Your task to perform on an android device: open app "ZOOM Cloud Meetings" (install if not already installed), go to login, and select forgot password Image 0: 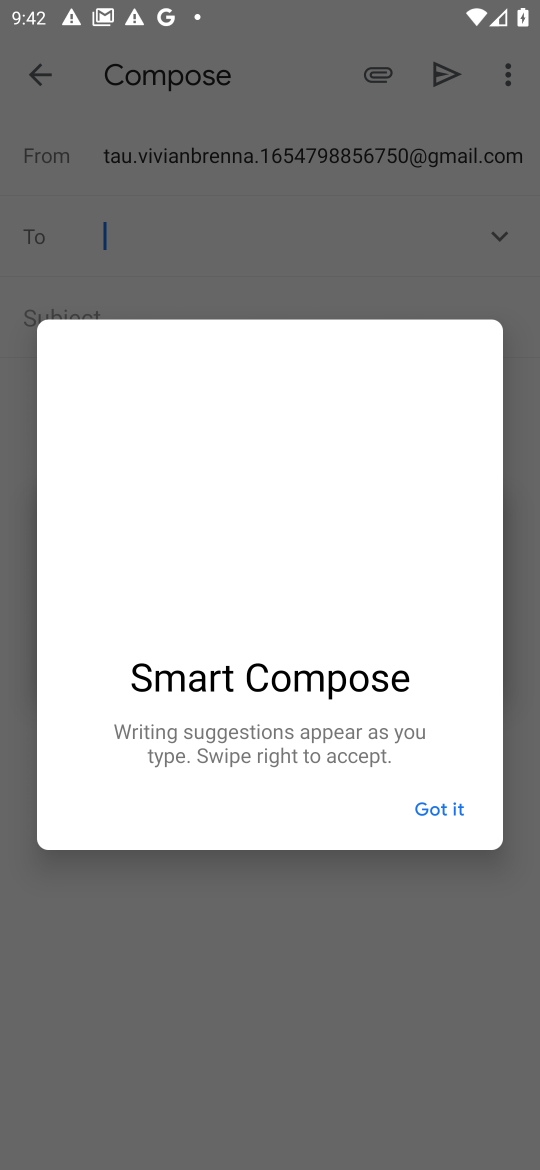
Step 0: press home button
Your task to perform on an android device: open app "ZOOM Cloud Meetings" (install if not already installed), go to login, and select forgot password Image 1: 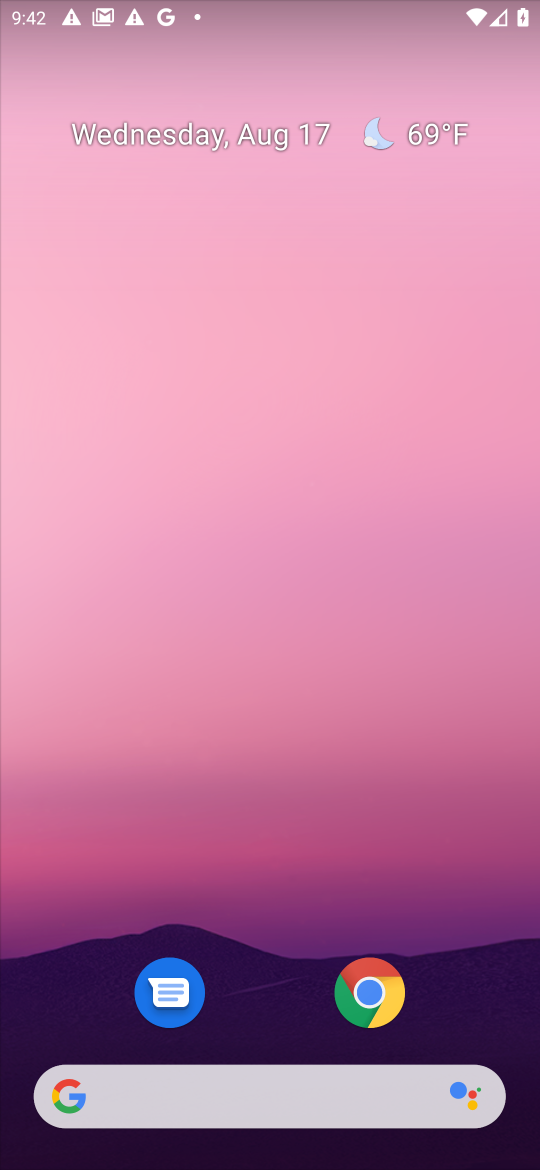
Step 1: drag from (452, 1025) to (238, 61)
Your task to perform on an android device: open app "ZOOM Cloud Meetings" (install if not already installed), go to login, and select forgot password Image 2: 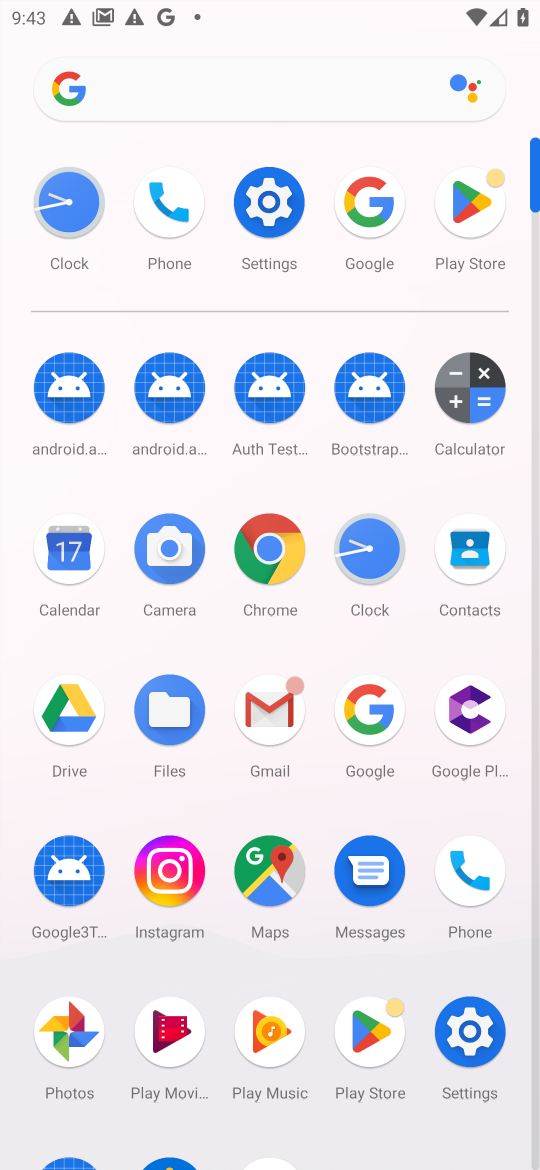
Step 2: click (373, 1027)
Your task to perform on an android device: open app "ZOOM Cloud Meetings" (install if not already installed), go to login, and select forgot password Image 3: 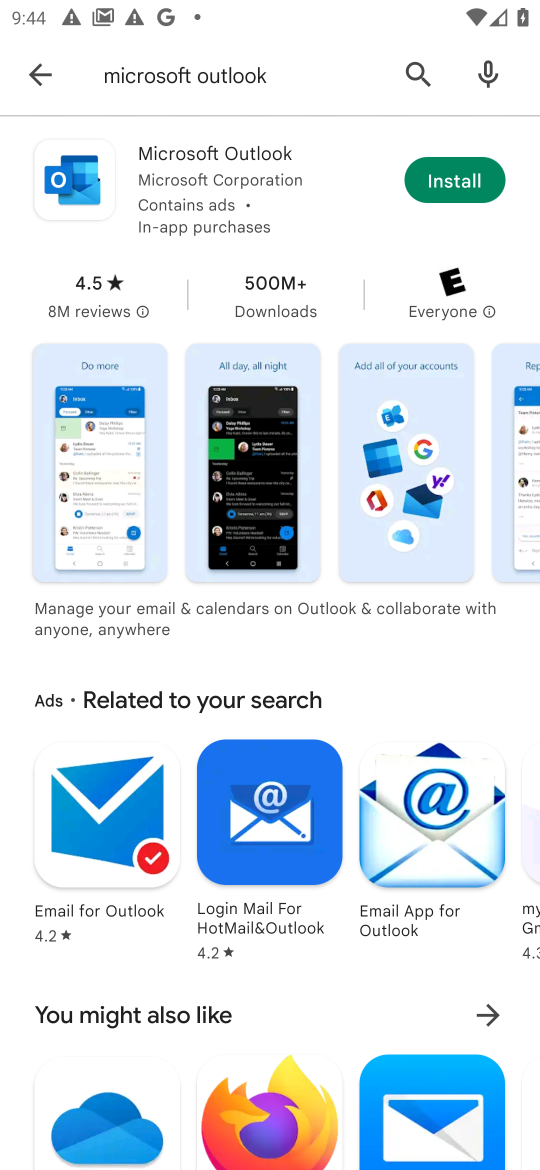
Step 3: press back button
Your task to perform on an android device: open app "ZOOM Cloud Meetings" (install if not already installed), go to login, and select forgot password Image 4: 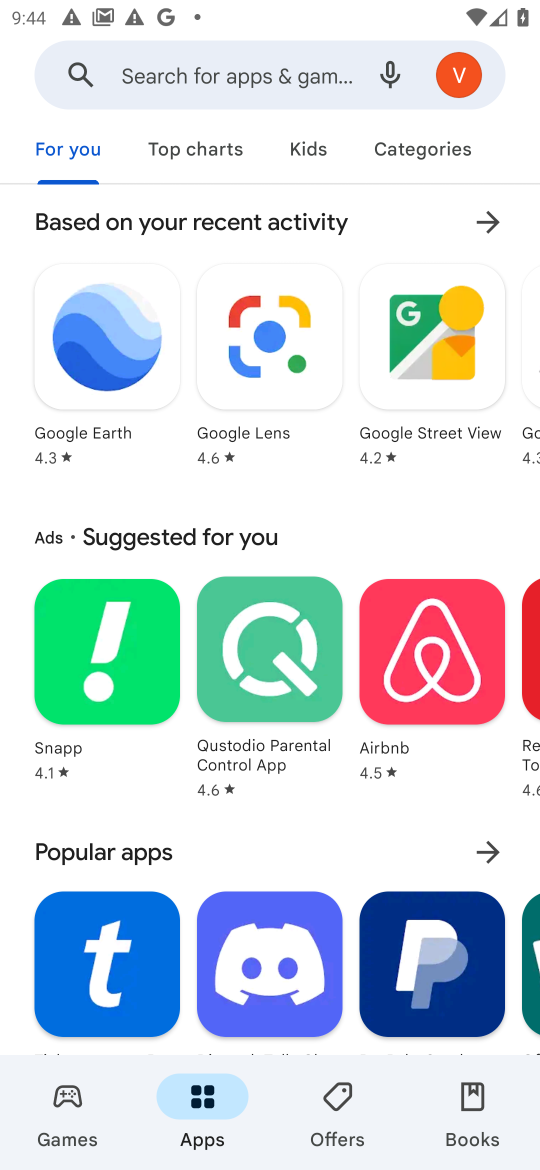
Step 4: click (171, 81)
Your task to perform on an android device: open app "ZOOM Cloud Meetings" (install if not already installed), go to login, and select forgot password Image 5: 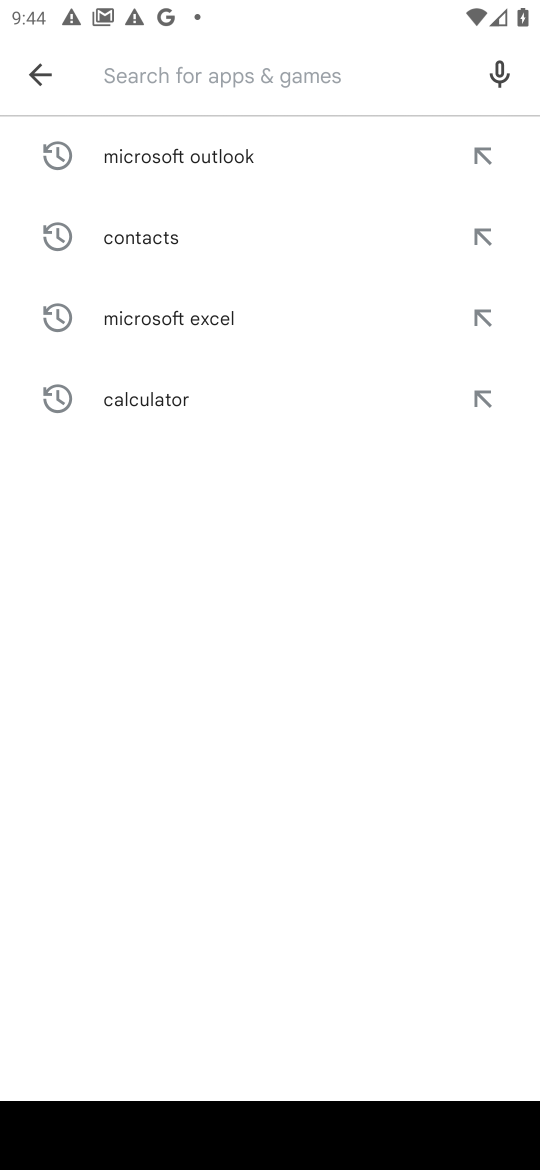
Step 5: type "ZOOM Cloud Meetings"
Your task to perform on an android device: open app "ZOOM Cloud Meetings" (install if not already installed), go to login, and select forgot password Image 6: 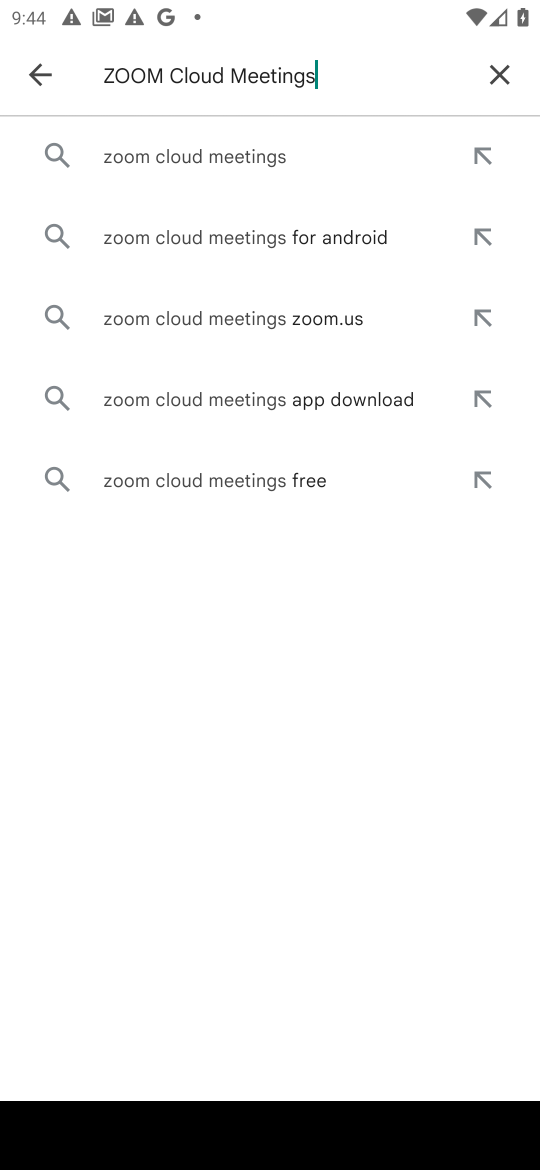
Step 6: click (183, 161)
Your task to perform on an android device: open app "ZOOM Cloud Meetings" (install if not already installed), go to login, and select forgot password Image 7: 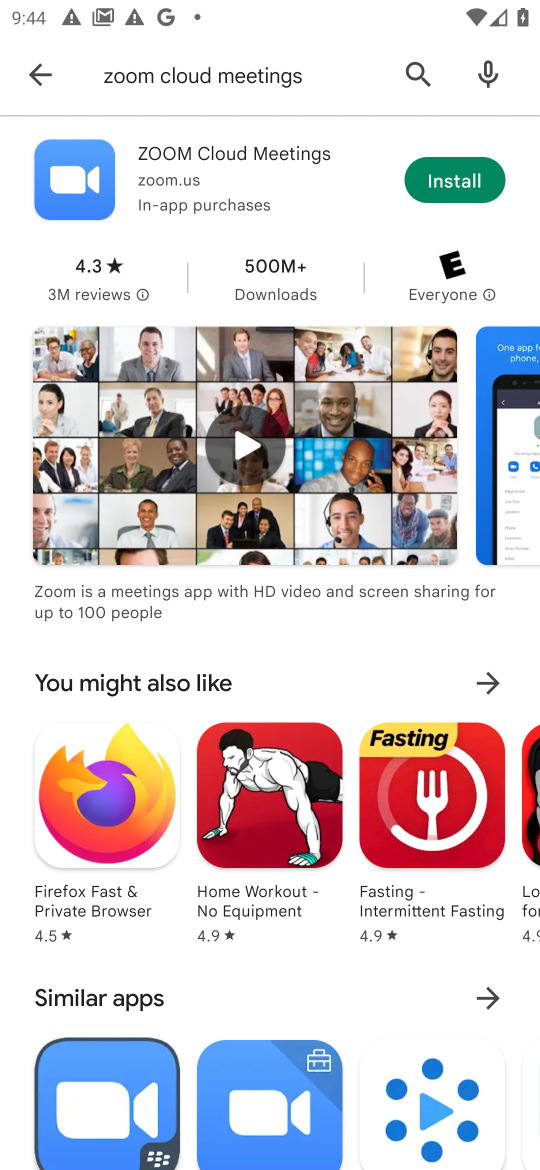
Step 7: task complete